Your task to perform on an android device: open the mobile data screen to see how much data has been used Image 0: 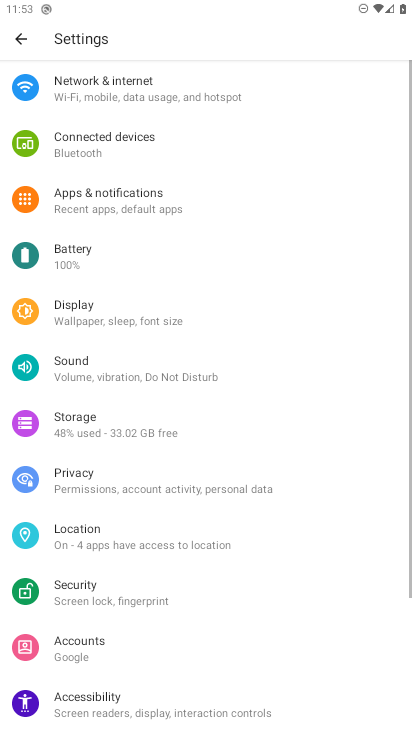
Step 0: click (143, 90)
Your task to perform on an android device: open the mobile data screen to see how much data has been used Image 1: 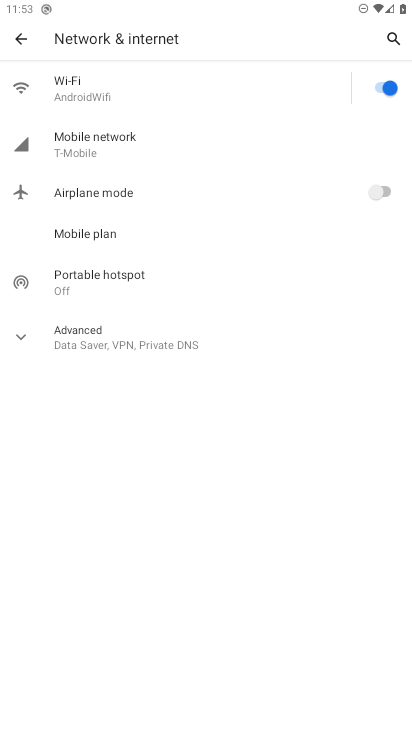
Step 1: click (95, 347)
Your task to perform on an android device: open the mobile data screen to see how much data has been used Image 2: 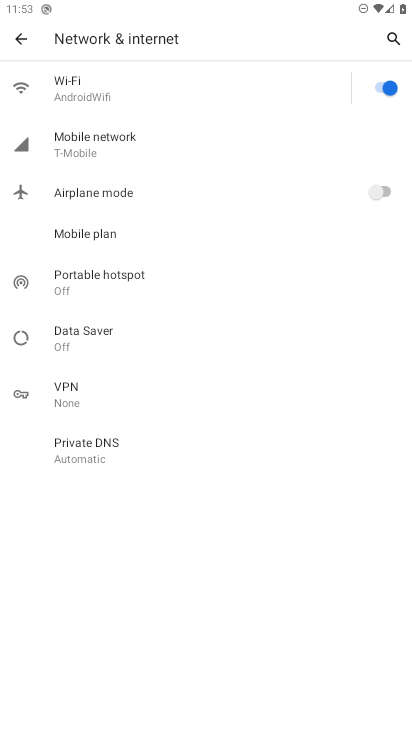
Step 2: click (119, 137)
Your task to perform on an android device: open the mobile data screen to see how much data has been used Image 3: 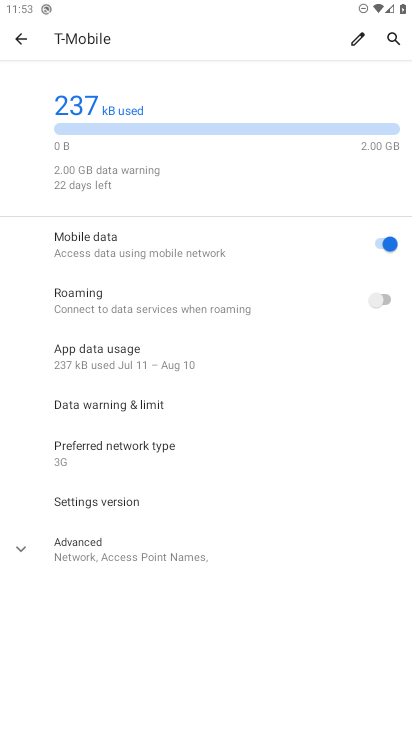
Step 3: task complete